Your task to perform on an android device: Go to privacy settings Image 0: 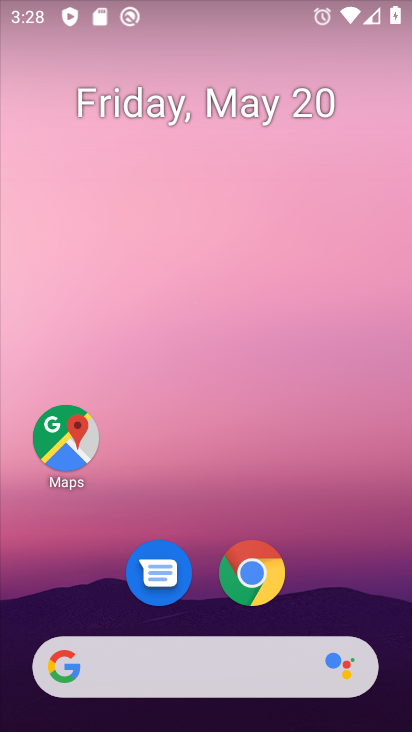
Step 0: drag from (241, 617) to (180, 115)
Your task to perform on an android device: Go to privacy settings Image 1: 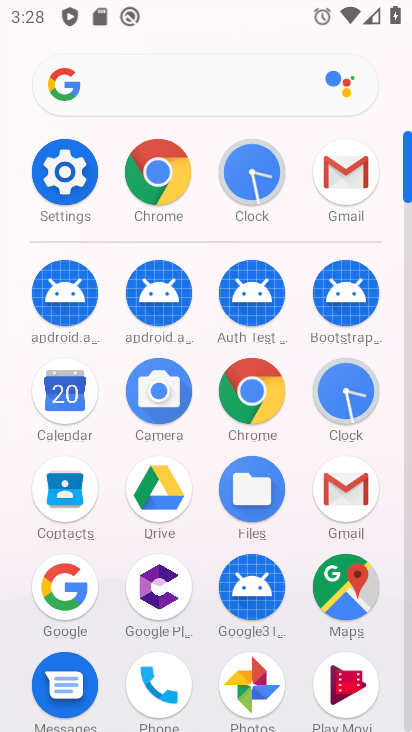
Step 1: click (87, 169)
Your task to perform on an android device: Go to privacy settings Image 2: 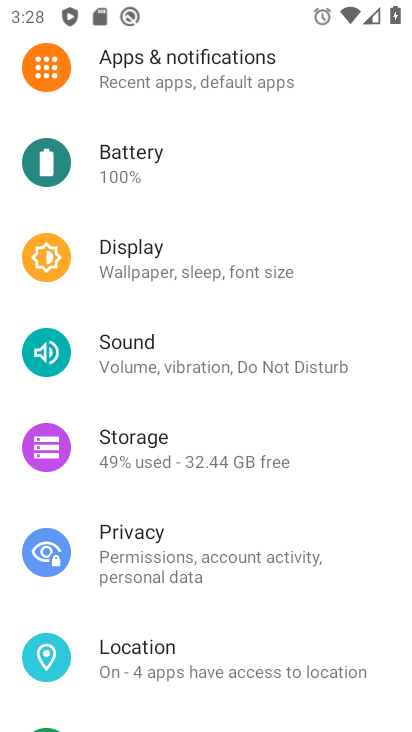
Step 2: click (131, 538)
Your task to perform on an android device: Go to privacy settings Image 3: 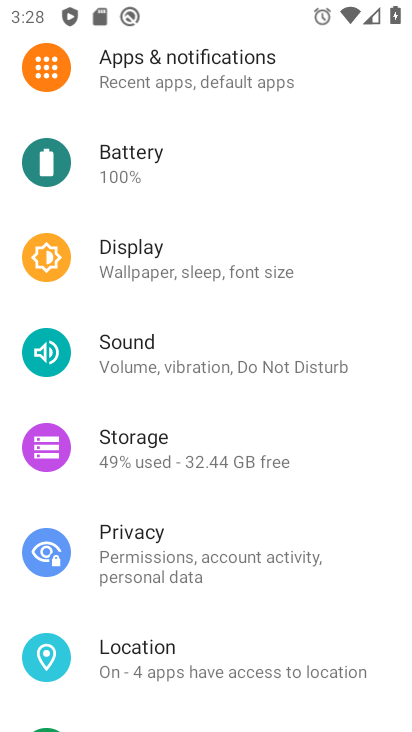
Step 3: task complete